Your task to perform on an android device: toggle data saver in the chrome app Image 0: 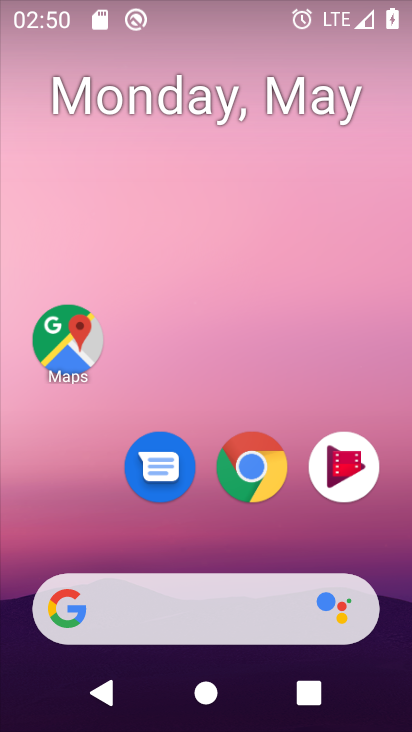
Step 0: click (244, 457)
Your task to perform on an android device: toggle data saver in the chrome app Image 1: 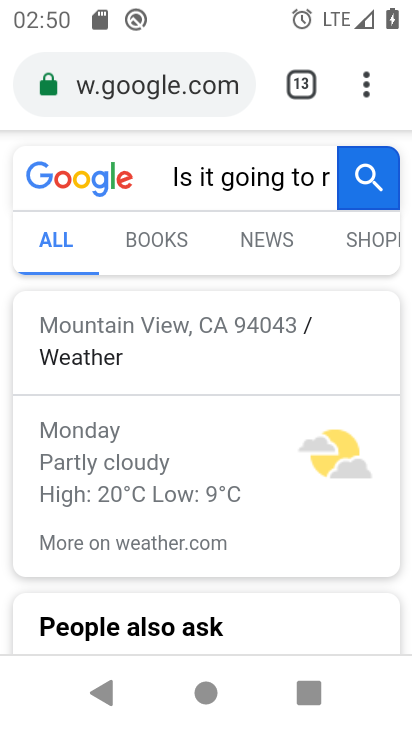
Step 1: click (380, 83)
Your task to perform on an android device: toggle data saver in the chrome app Image 2: 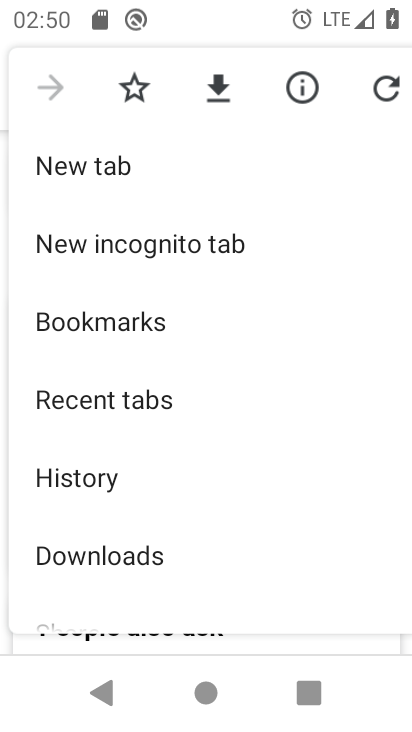
Step 2: drag from (159, 507) to (215, 225)
Your task to perform on an android device: toggle data saver in the chrome app Image 3: 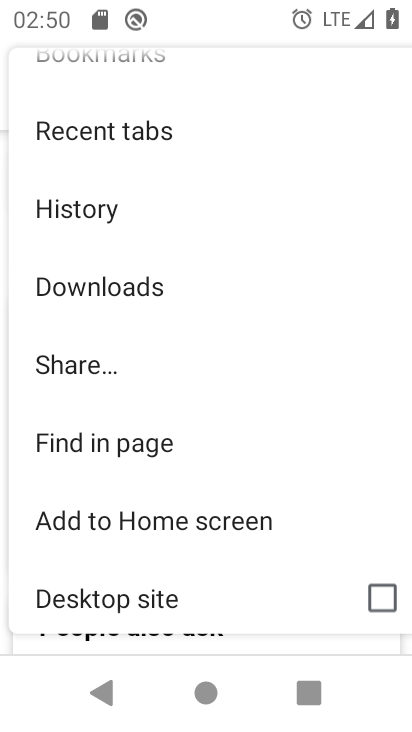
Step 3: drag from (100, 576) to (178, 294)
Your task to perform on an android device: toggle data saver in the chrome app Image 4: 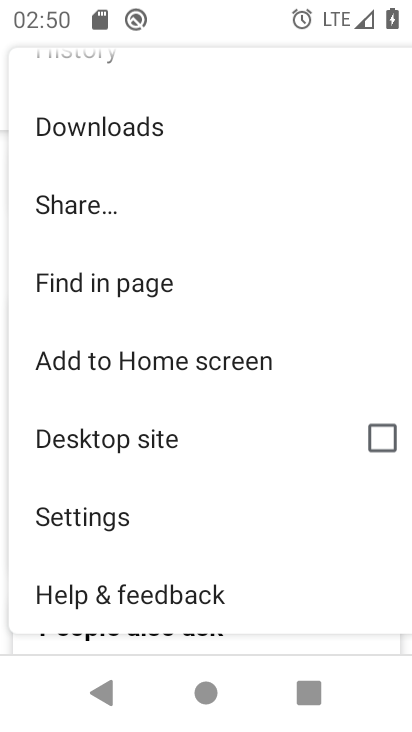
Step 4: click (103, 505)
Your task to perform on an android device: toggle data saver in the chrome app Image 5: 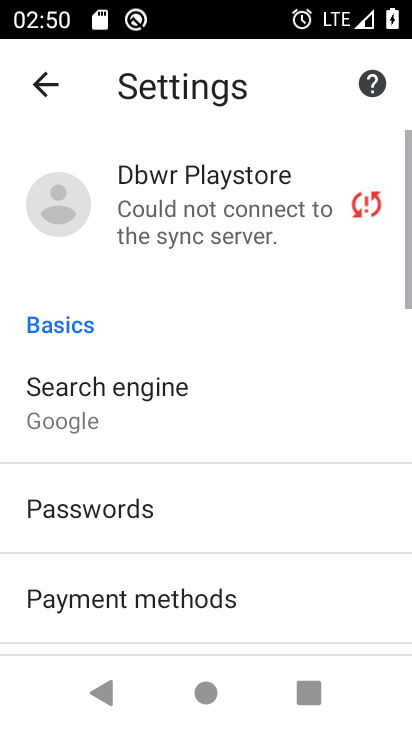
Step 5: drag from (176, 508) to (246, 180)
Your task to perform on an android device: toggle data saver in the chrome app Image 6: 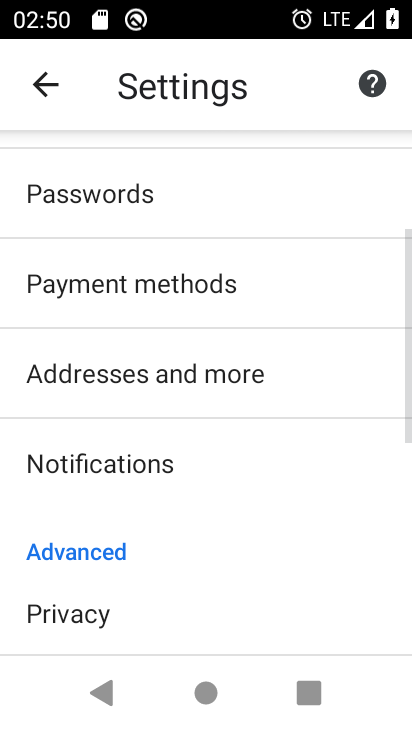
Step 6: drag from (121, 558) to (236, 139)
Your task to perform on an android device: toggle data saver in the chrome app Image 7: 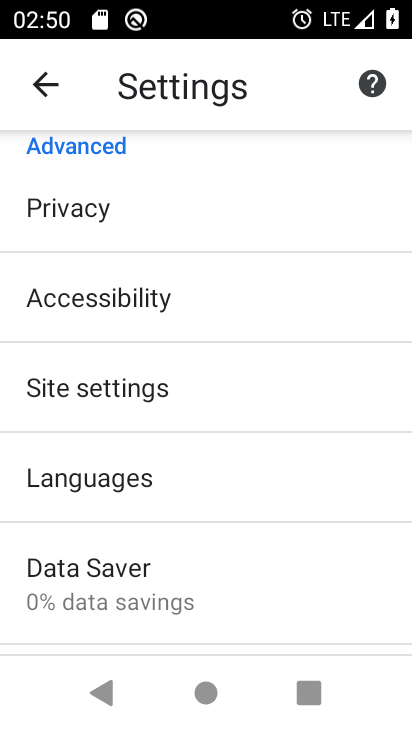
Step 7: click (123, 594)
Your task to perform on an android device: toggle data saver in the chrome app Image 8: 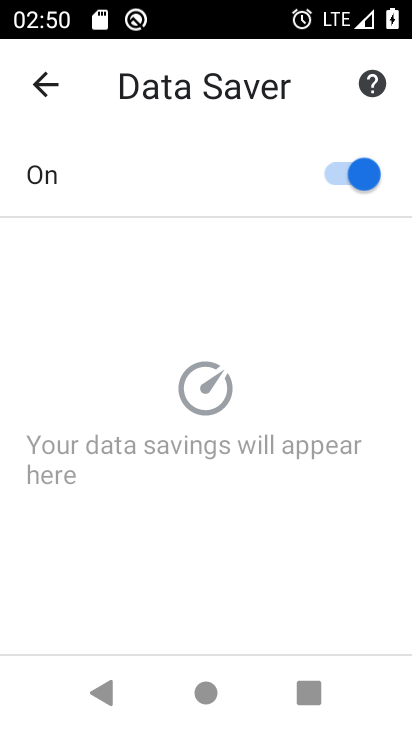
Step 8: click (344, 146)
Your task to perform on an android device: toggle data saver in the chrome app Image 9: 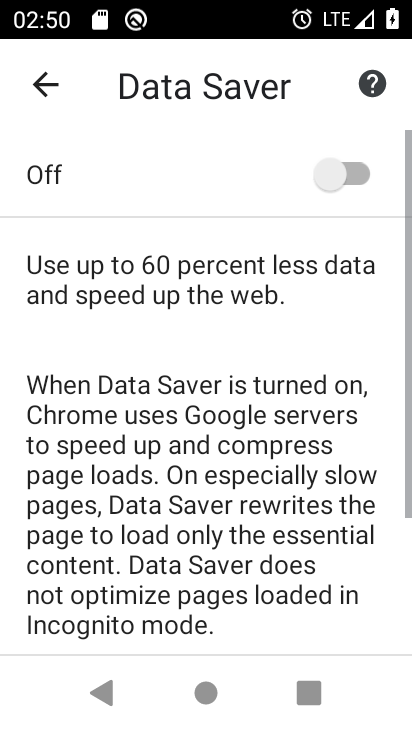
Step 9: task complete